Your task to perform on an android device: Go to display settings Image 0: 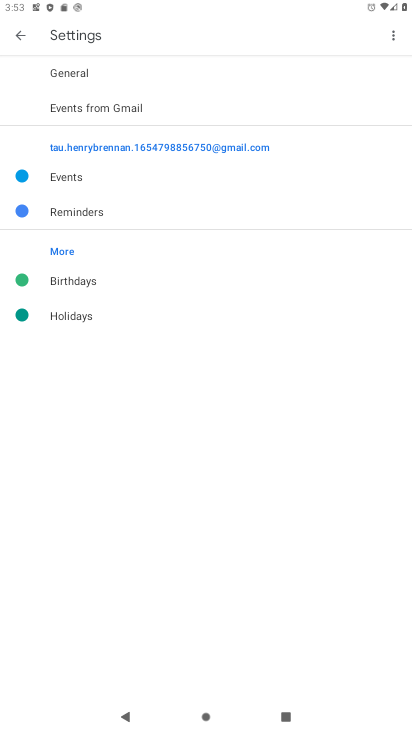
Step 0: press home button
Your task to perform on an android device: Go to display settings Image 1: 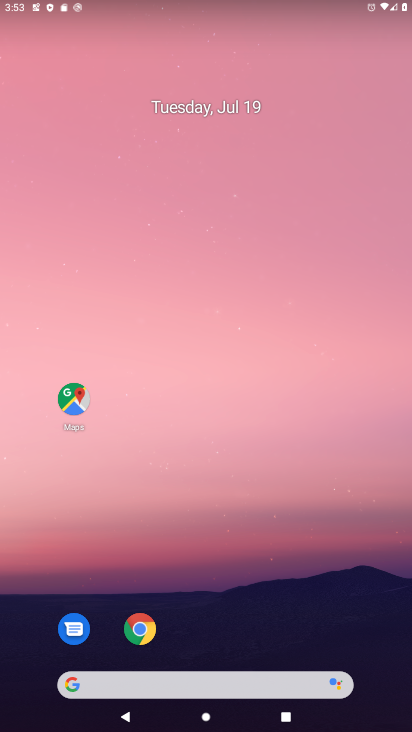
Step 1: drag from (139, 670) to (151, 257)
Your task to perform on an android device: Go to display settings Image 2: 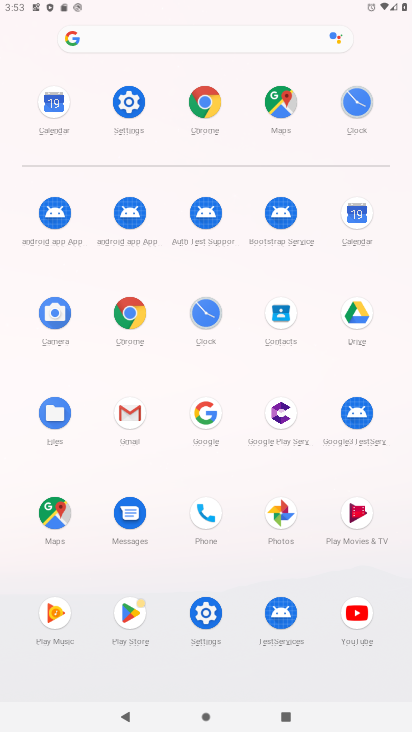
Step 2: click (130, 93)
Your task to perform on an android device: Go to display settings Image 3: 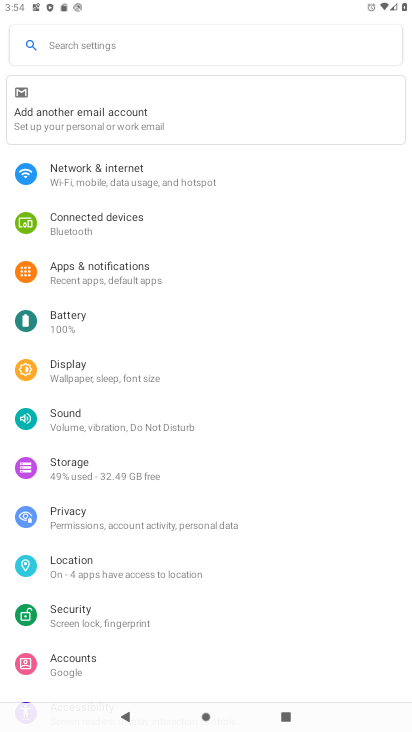
Step 3: click (61, 370)
Your task to perform on an android device: Go to display settings Image 4: 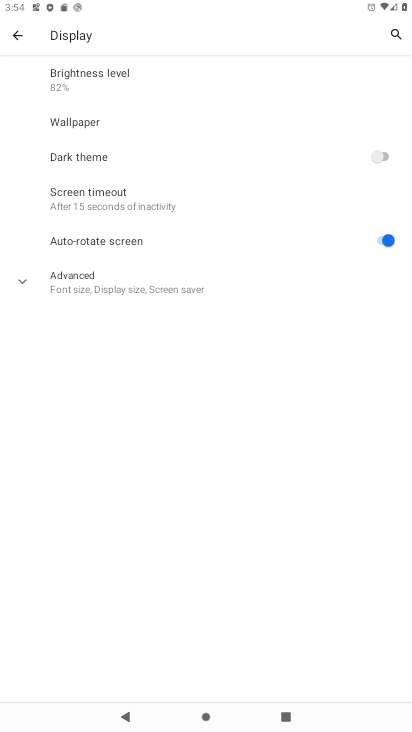
Step 4: click (97, 277)
Your task to perform on an android device: Go to display settings Image 5: 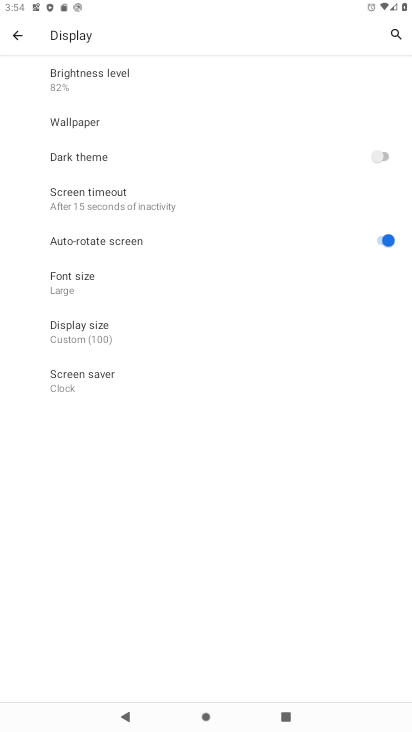
Step 5: task complete